Your task to perform on an android device: Open Google Maps Image 0: 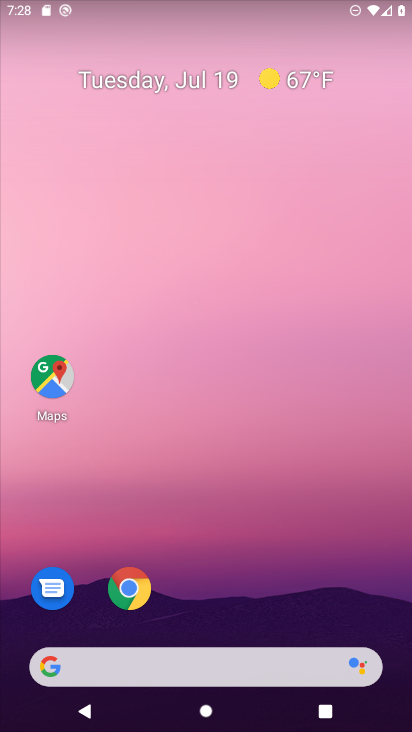
Step 0: drag from (357, 606) to (350, 104)
Your task to perform on an android device: Open Google Maps Image 1: 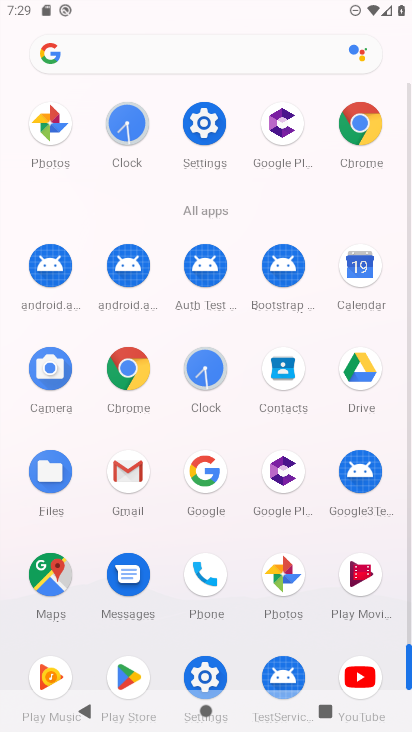
Step 1: click (54, 580)
Your task to perform on an android device: Open Google Maps Image 2: 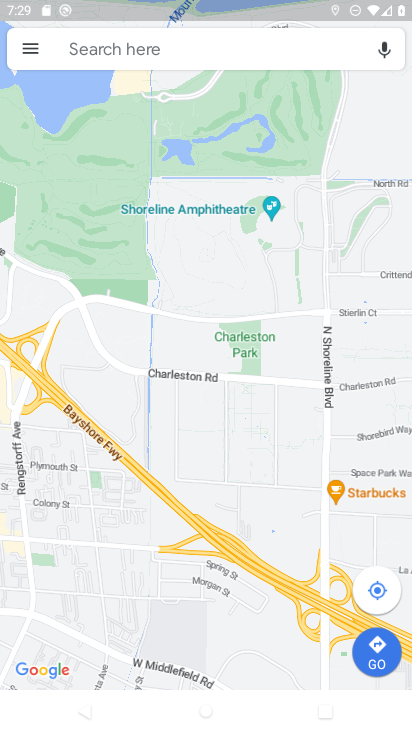
Step 2: task complete